Your task to perform on an android device: Open calendar and show me the second week of next month Image 0: 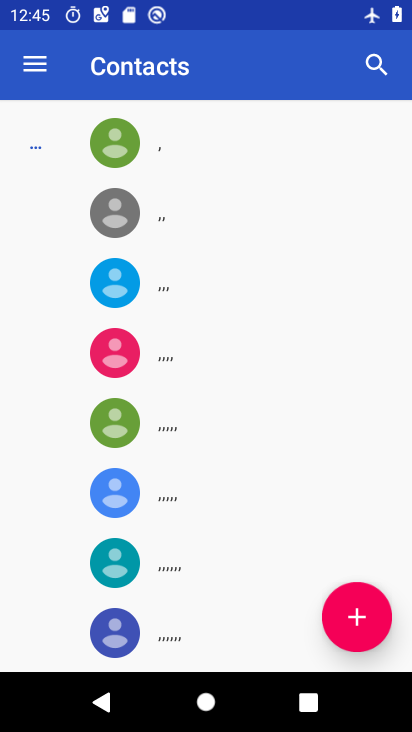
Step 0: press home button
Your task to perform on an android device: Open calendar and show me the second week of next month Image 1: 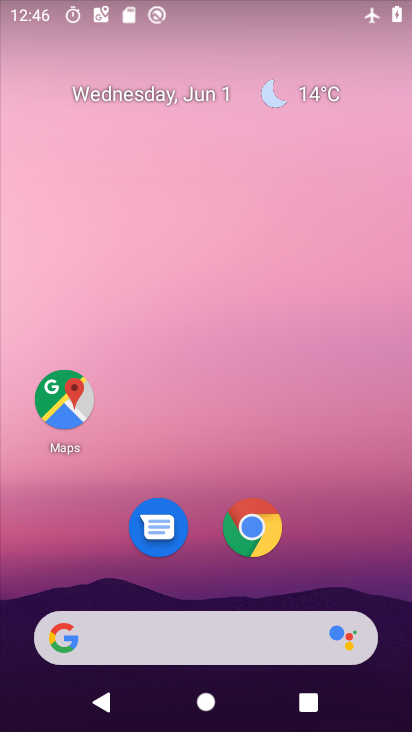
Step 1: drag from (381, 601) to (291, 0)
Your task to perform on an android device: Open calendar and show me the second week of next month Image 2: 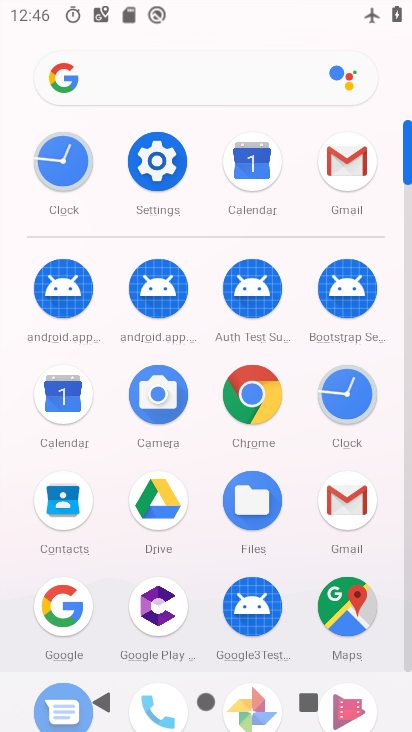
Step 2: click (248, 164)
Your task to perform on an android device: Open calendar and show me the second week of next month Image 3: 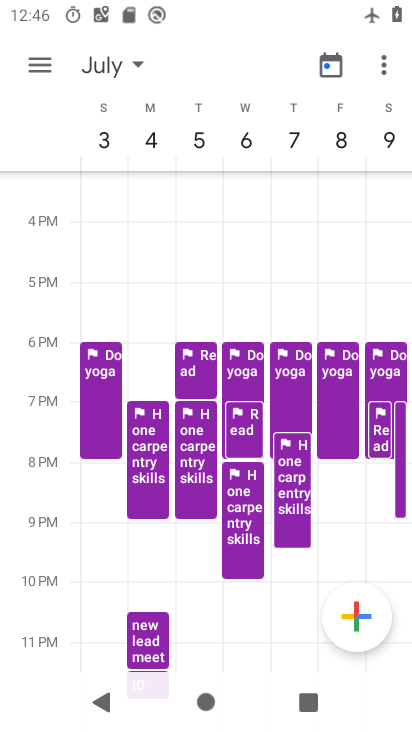
Step 3: task complete